Your task to perform on an android device: toggle priority inbox in the gmail app Image 0: 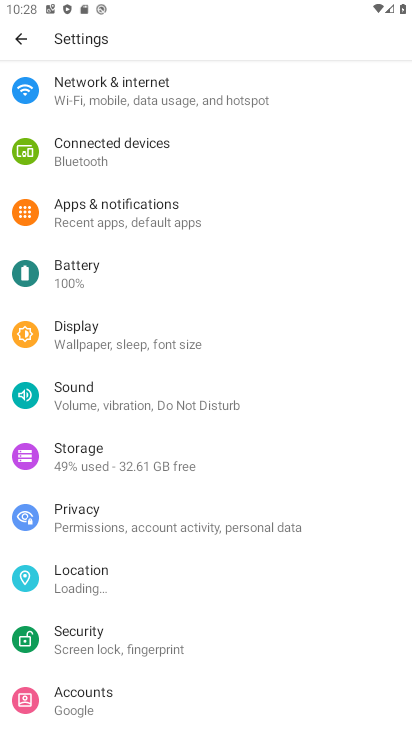
Step 0: press home button
Your task to perform on an android device: toggle priority inbox in the gmail app Image 1: 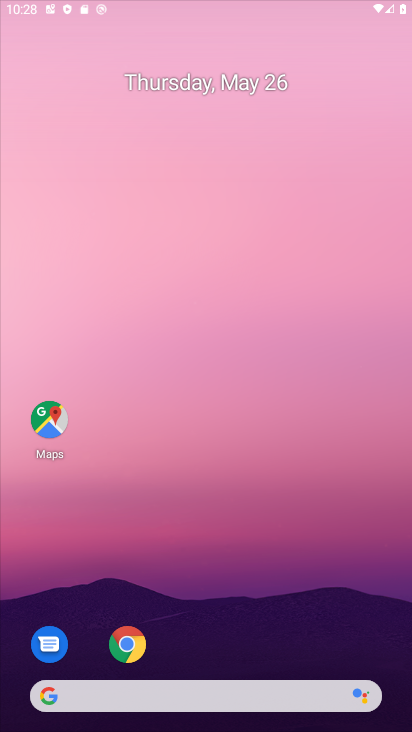
Step 1: drag from (372, 660) to (287, 37)
Your task to perform on an android device: toggle priority inbox in the gmail app Image 2: 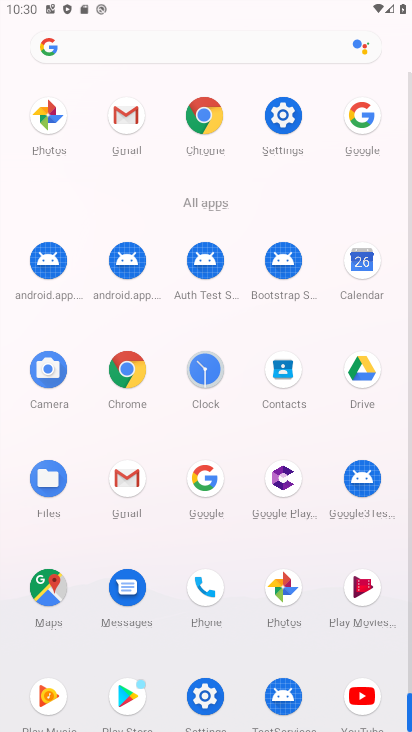
Step 2: click (141, 499)
Your task to perform on an android device: toggle priority inbox in the gmail app Image 3: 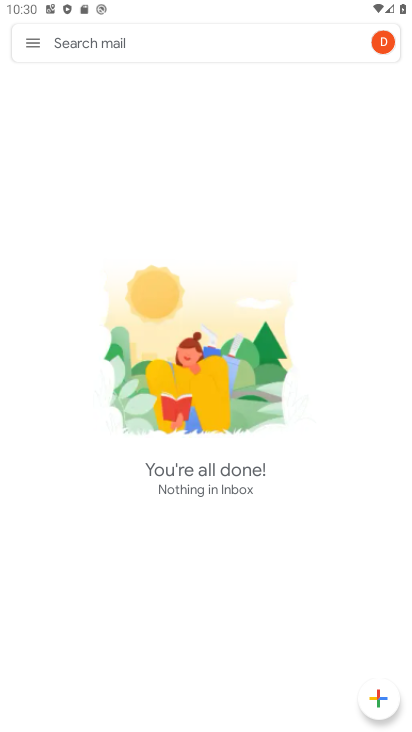
Step 3: click (31, 41)
Your task to perform on an android device: toggle priority inbox in the gmail app Image 4: 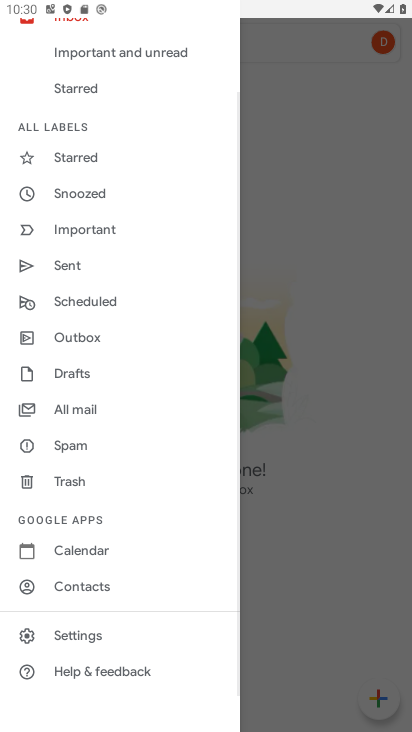
Step 4: click (113, 631)
Your task to perform on an android device: toggle priority inbox in the gmail app Image 5: 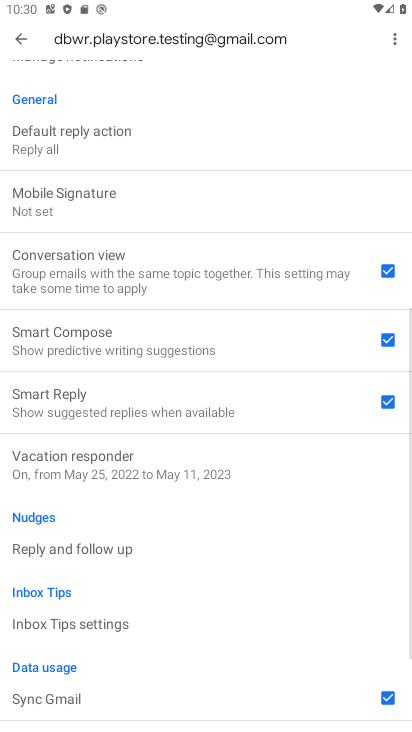
Step 5: drag from (124, 147) to (178, 693)
Your task to perform on an android device: toggle priority inbox in the gmail app Image 6: 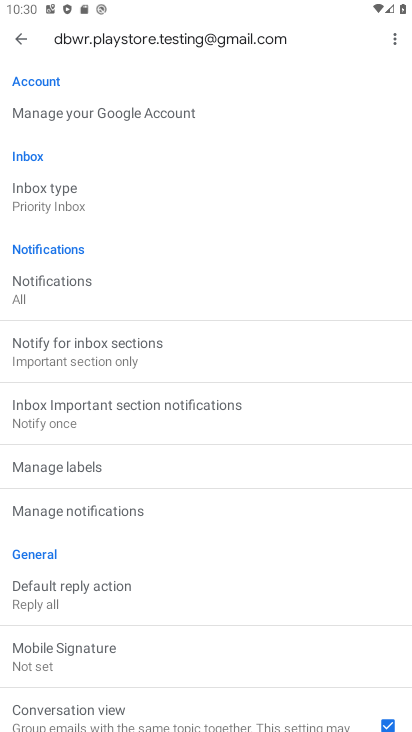
Step 6: click (66, 215)
Your task to perform on an android device: toggle priority inbox in the gmail app Image 7: 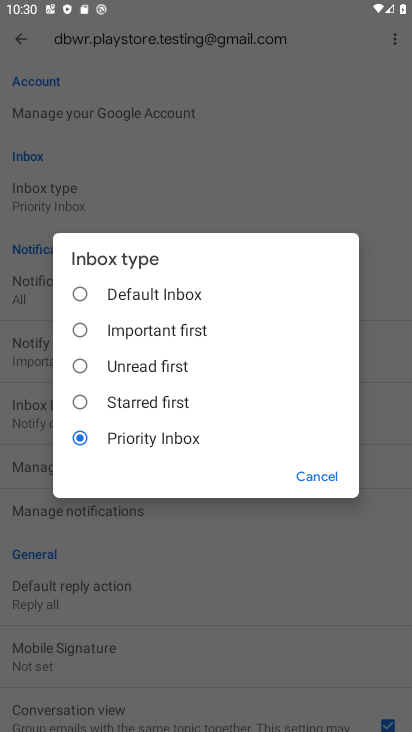
Step 7: click (143, 297)
Your task to perform on an android device: toggle priority inbox in the gmail app Image 8: 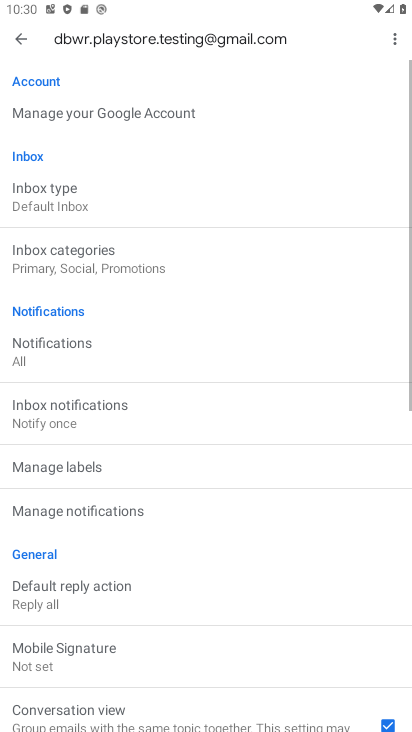
Step 8: task complete